Your task to perform on an android device: open app "Microsoft Authenticator" Image 0: 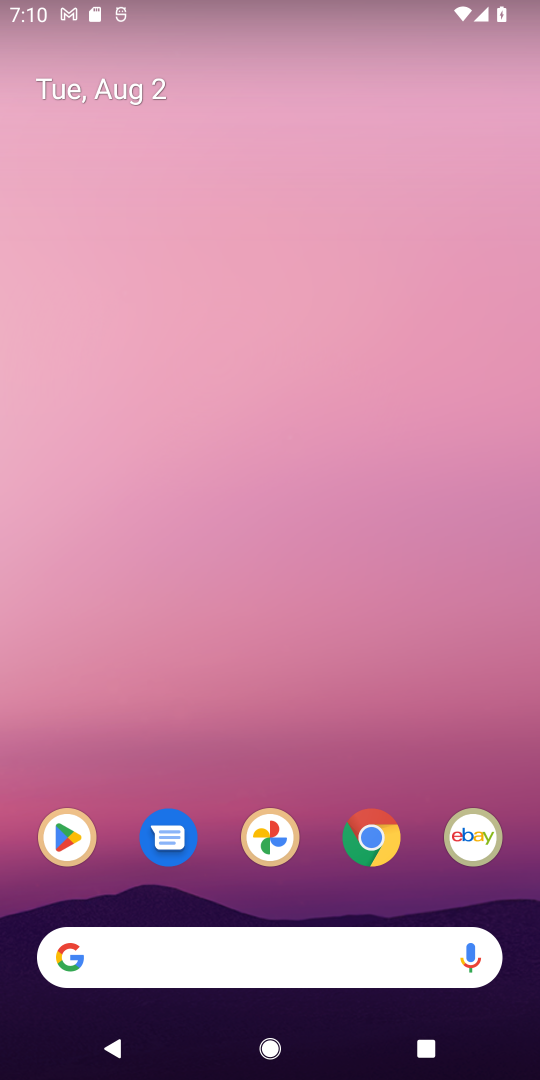
Step 0: drag from (300, 725) to (341, 340)
Your task to perform on an android device: open app "Microsoft Authenticator" Image 1: 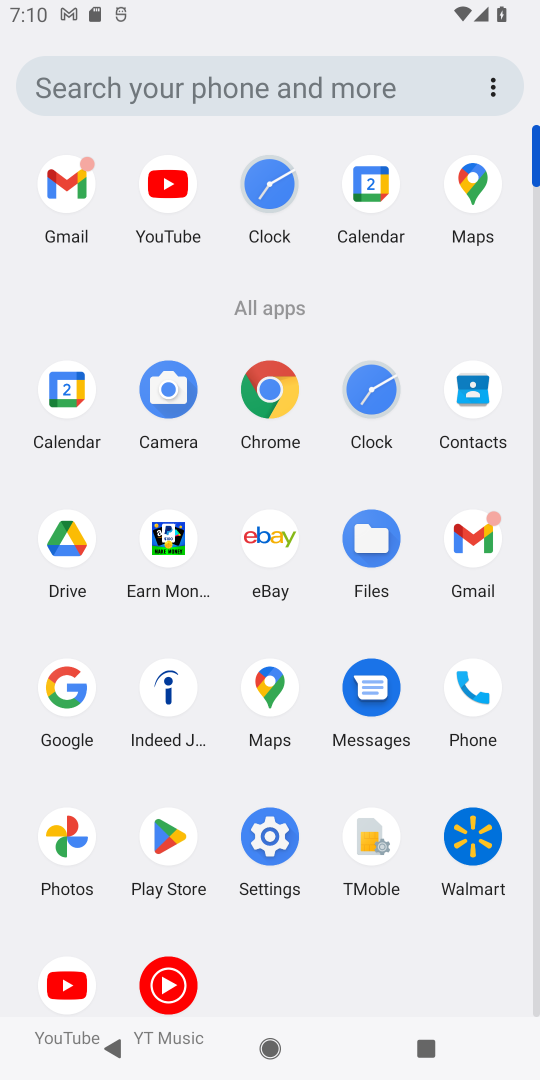
Step 1: click (142, 834)
Your task to perform on an android device: open app "Microsoft Authenticator" Image 2: 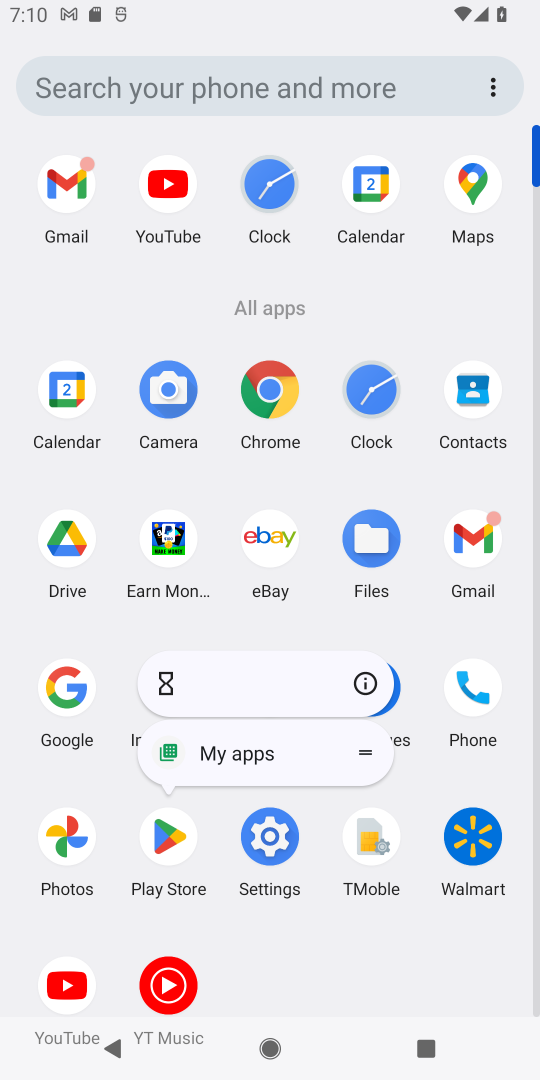
Step 2: click (366, 684)
Your task to perform on an android device: open app "Microsoft Authenticator" Image 3: 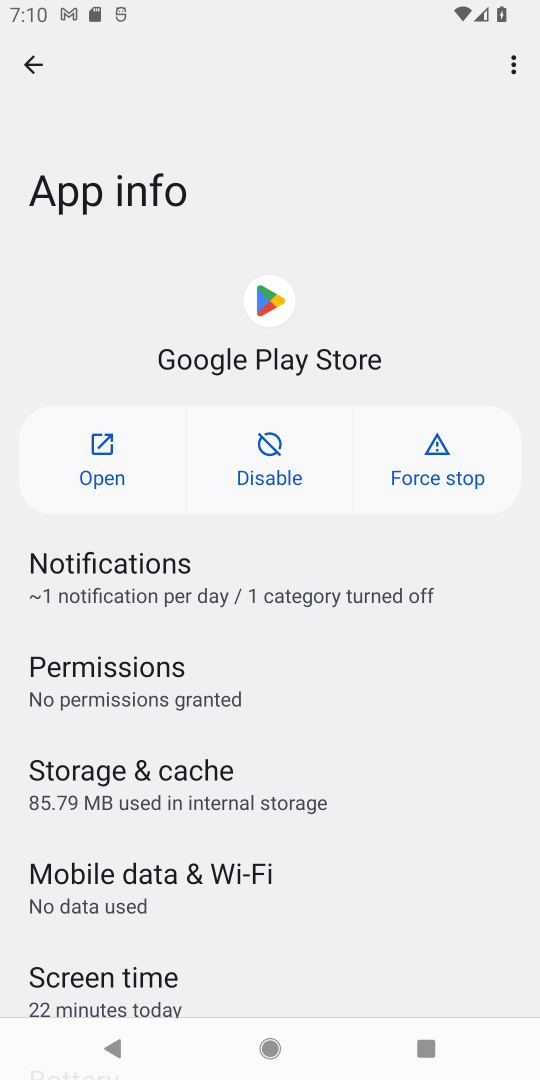
Step 3: click (103, 474)
Your task to perform on an android device: open app "Microsoft Authenticator" Image 4: 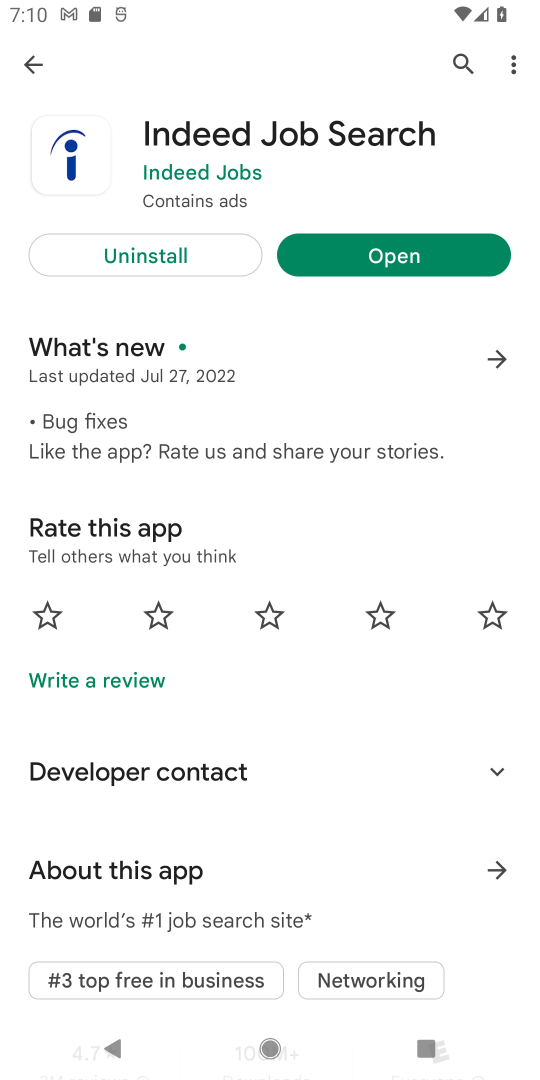
Step 4: click (456, 65)
Your task to perform on an android device: open app "Microsoft Authenticator" Image 5: 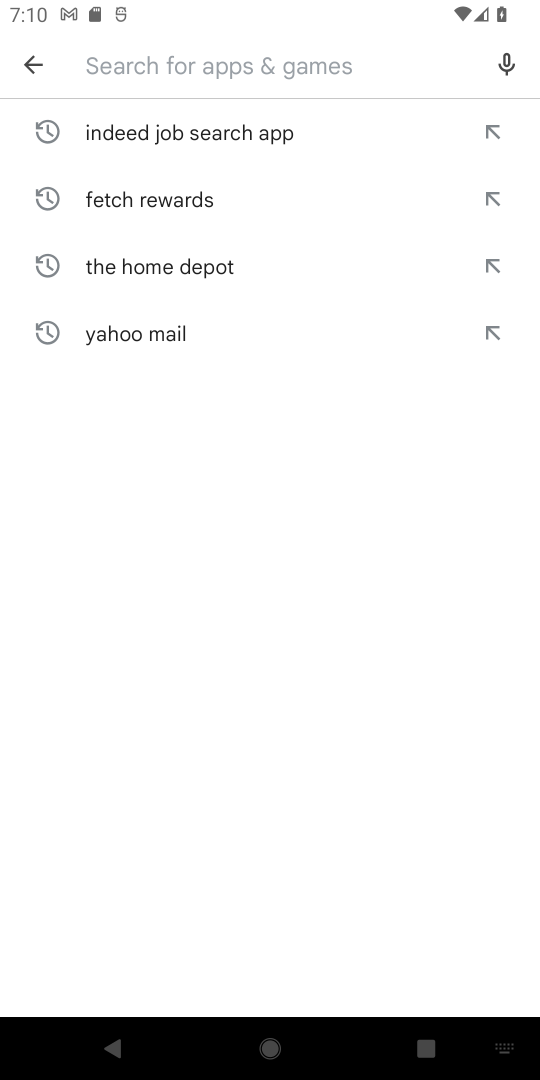
Step 5: click (303, 66)
Your task to perform on an android device: open app "Microsoft Authenticator" Image 6: 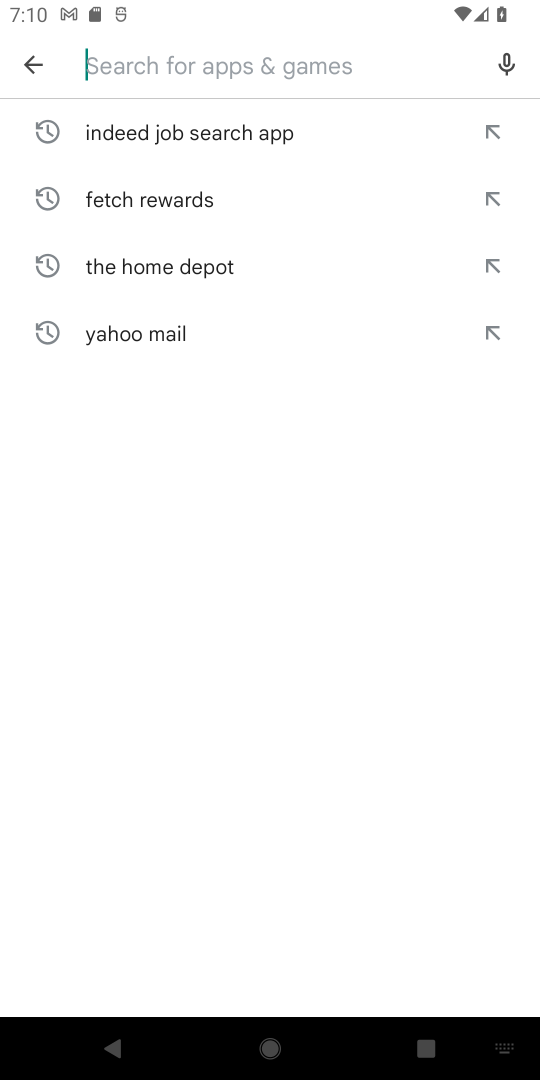
Step 6: click (140, 63)
Your task to perform on an android device: open app "Microsoft Authenticator" Image 7: 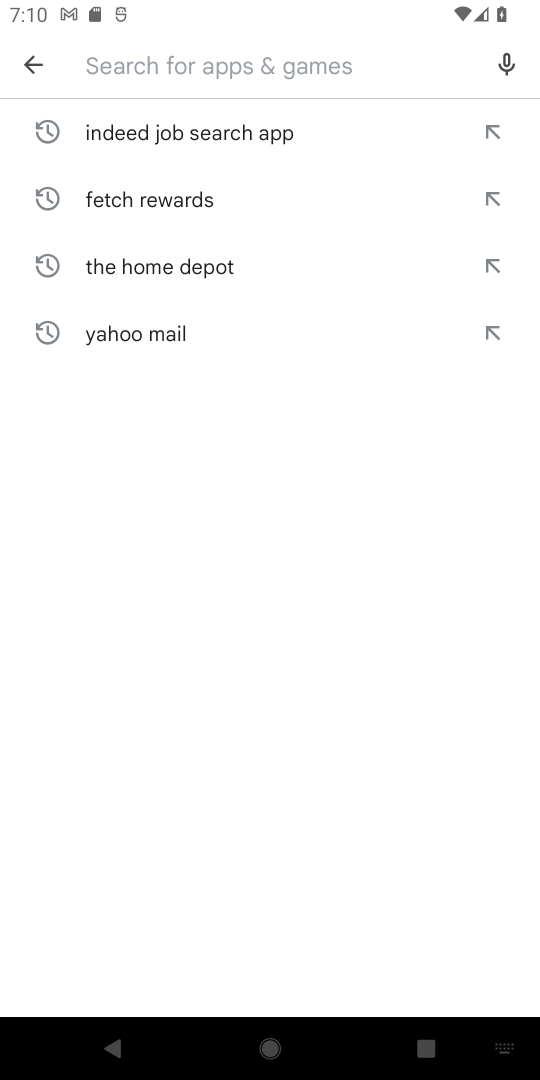
Step 7: type "Microsoft Authenticator"
Your task to perform on an android device: open app "Microsoft Authenticator" Image 8: 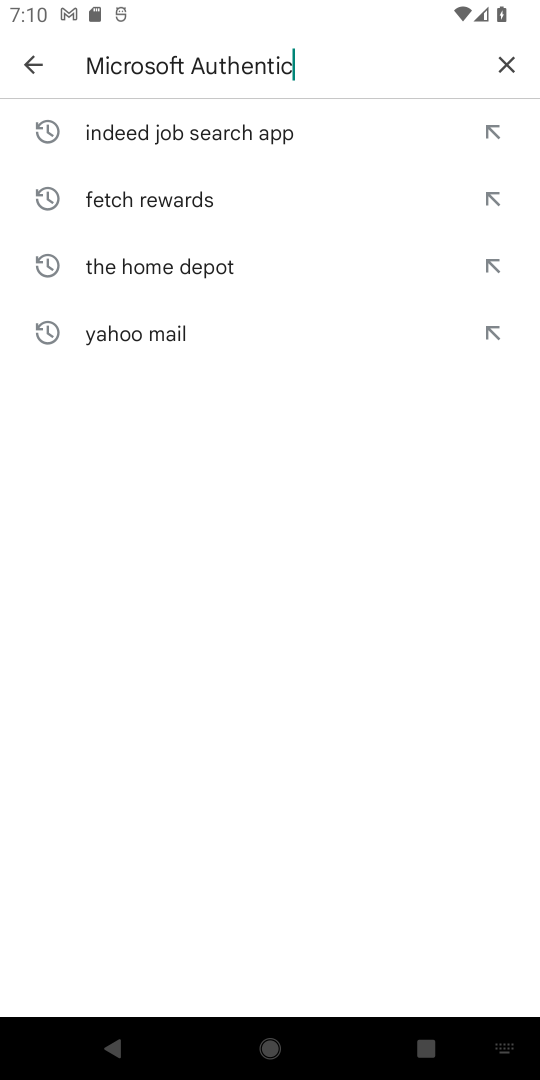
Step 8: type ""
Your task to perform on an android device: open app "Microsoft Authenticator" Image 9: 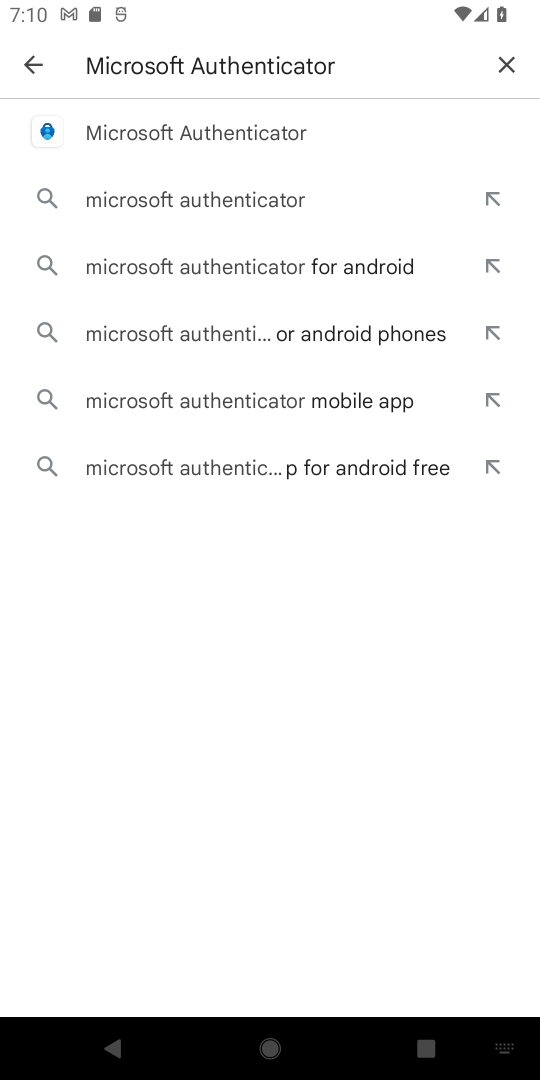
Step 9: click (155, 136)
Your task to perform on an android device: open app "Microsoft Authenticator" Image 10: 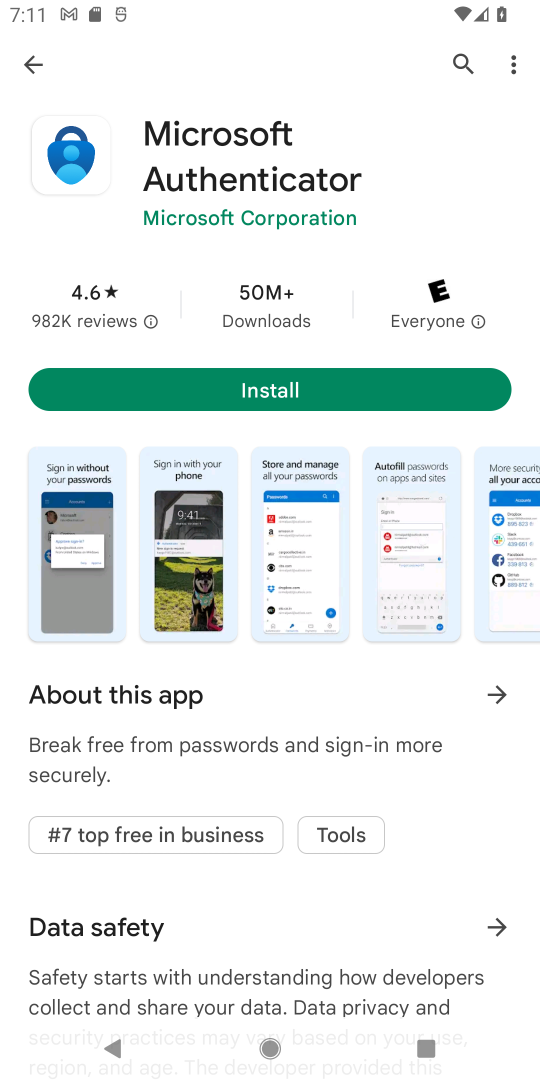
Step 10: task complete